Your task to perform on an android device: change notifications settings Image 0: 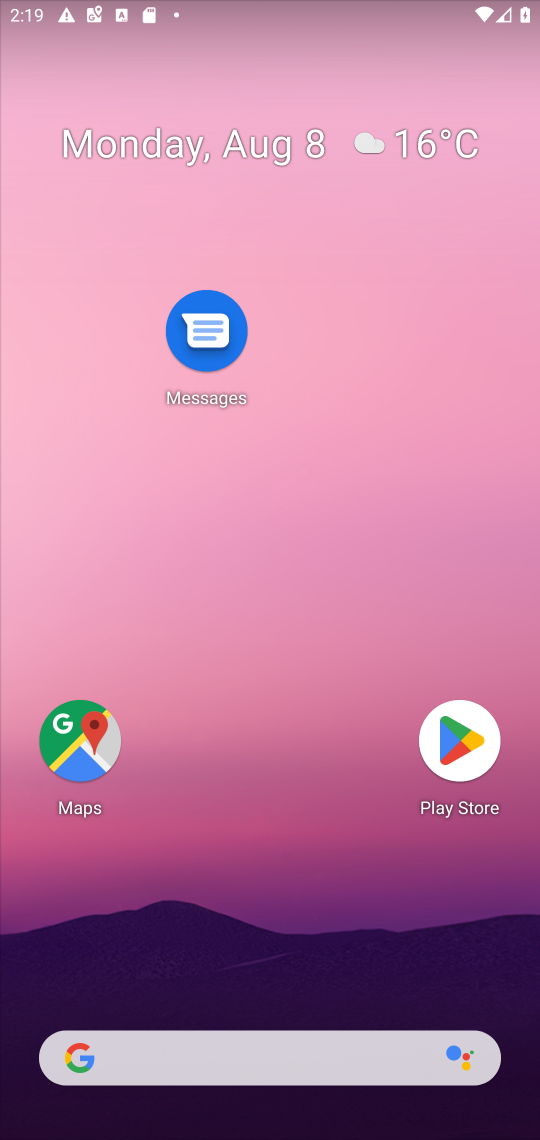
Step 0: drag from (232, 495) to (256, 192)
Your task to perform on an android device: change notifications settings Image 1: 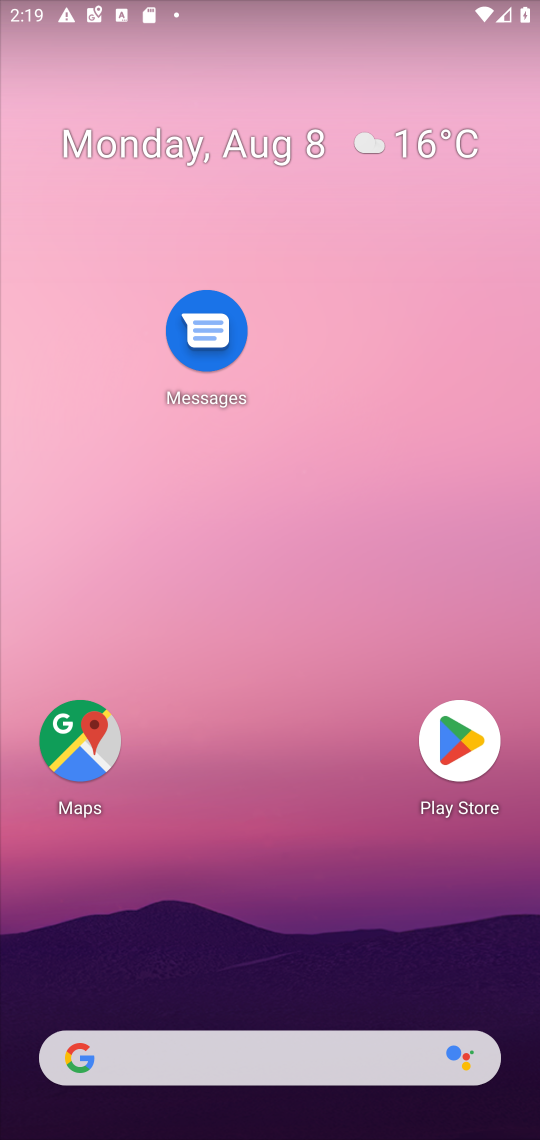
Step 1: drag from (251, 1040) to (378, 0)
Your task to perform on an android device: change notifications settings Image 2: 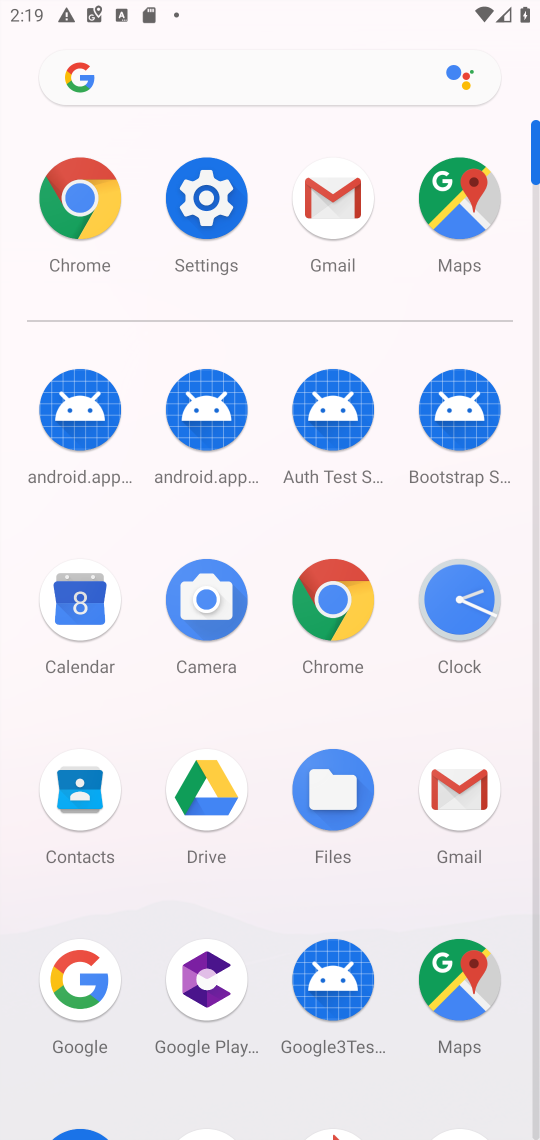
Step 2: click (202, 189)
Your task to perform on an android device: change notifications settings Image 3: 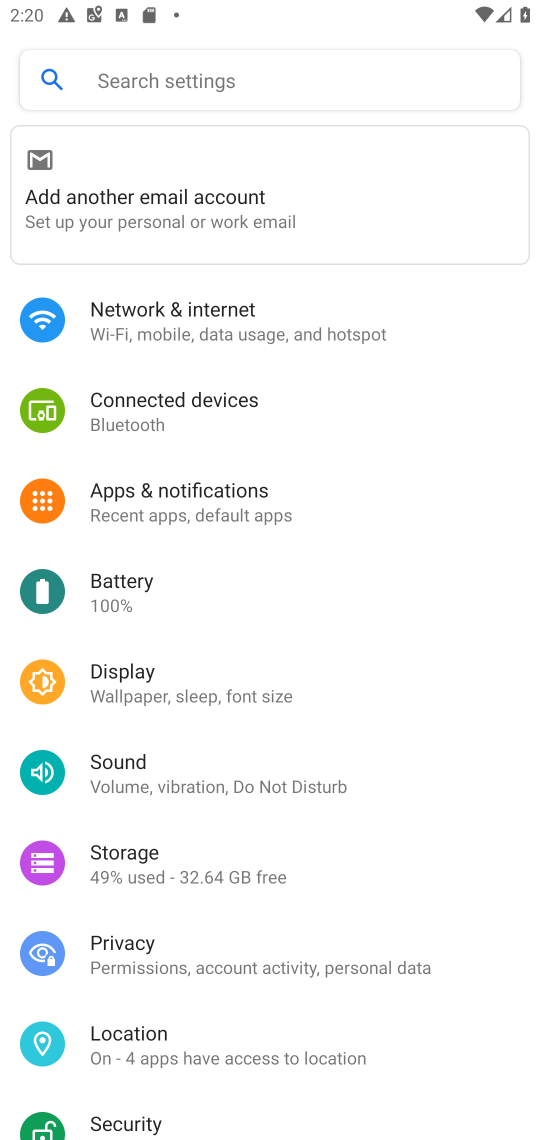
Step 3: click (118, 499)
Your task to perform on an android device: change notifications settings Image 4: 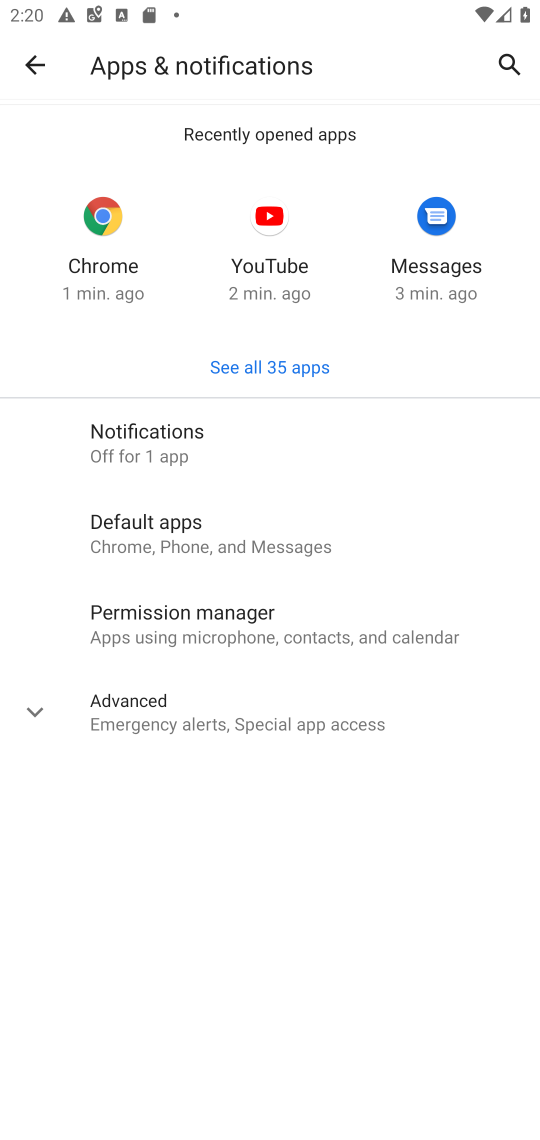
Step 4: task complete